Your task to perform on an android device: Check the weather Image 0: 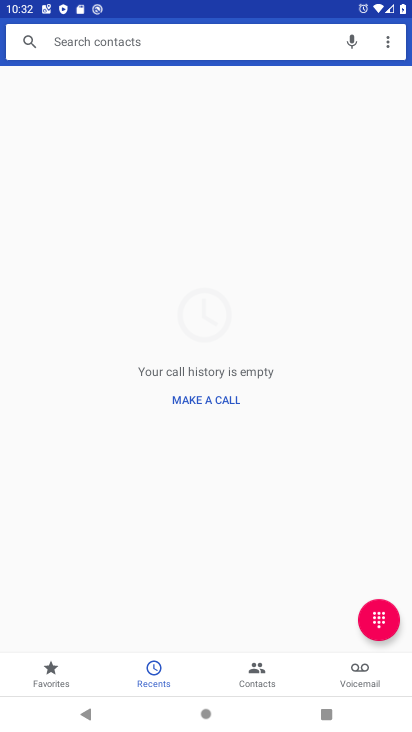
Step 0: press home button
Your task to perform on an android device: Check the weather Image 1: 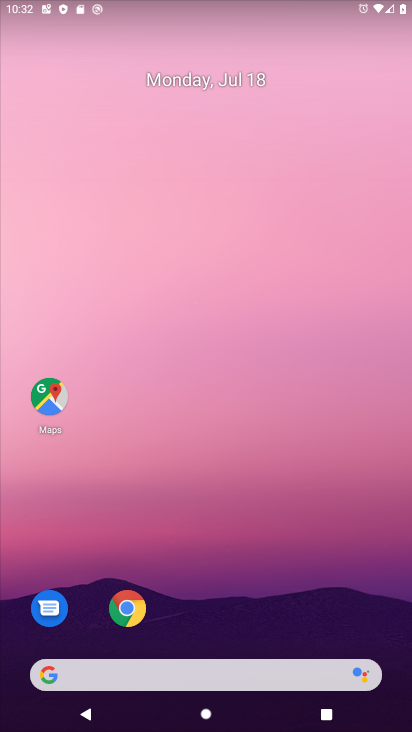
Step 1: click (87, 678)
Your task to perform on an android device: Check the weather Image 2: 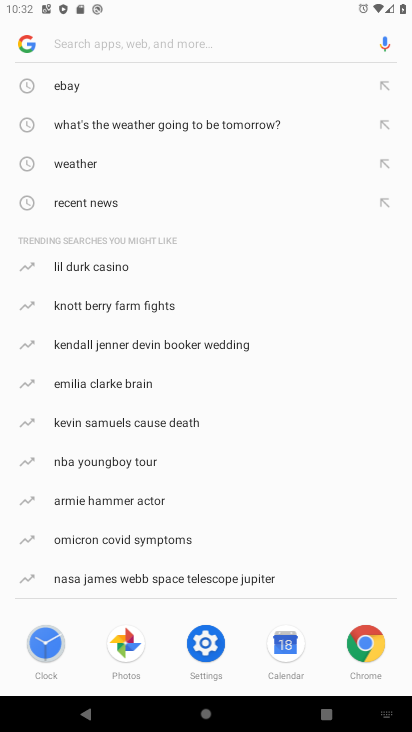
Step 2: type " weather"
Your task to perform on an android device: Check the weather Image 3: 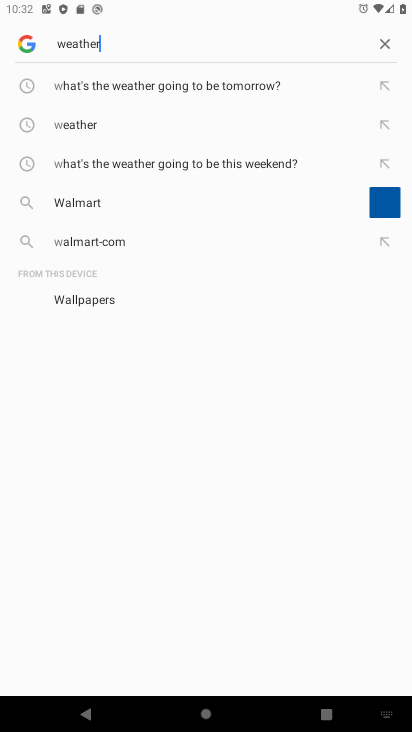
Step 3: type ""
Your task to perform on an android device: Check the weather Image 4: 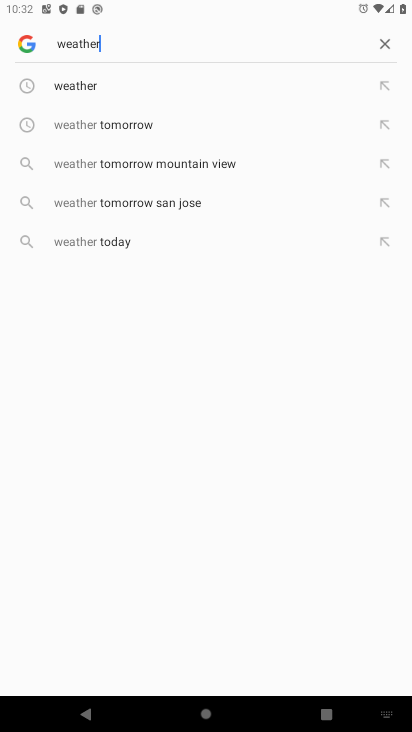
Step 4: click (95, 91)
Your task to perform on an android device: Check the weather Image 5: 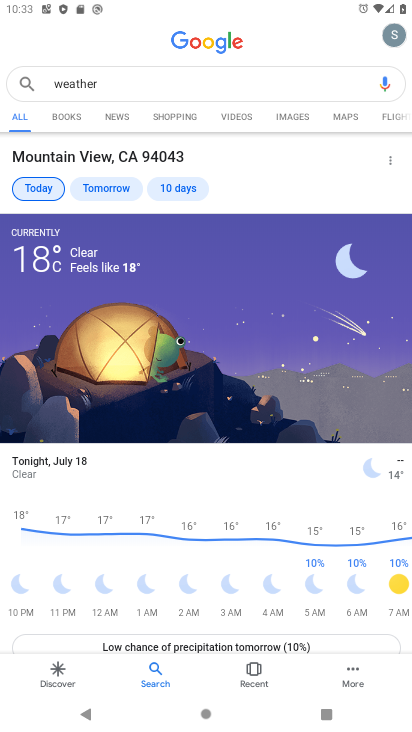
Step 5: task complete